Your task to perform on an android device: Go to battery settings Image 0: 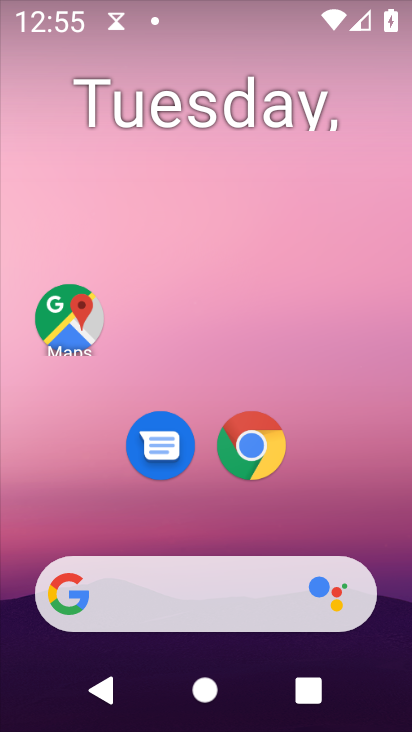
Step 0: drag from (358, 637) to (333, 3)
Your task to perform on an android device: Go to battery settings Image 1: 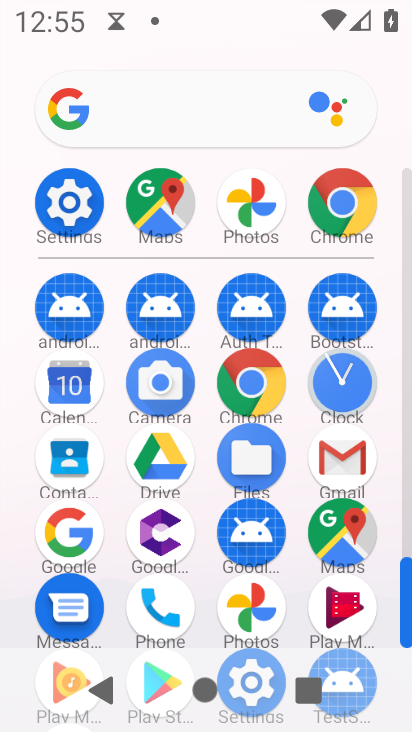
Step 1: click (78, 202)
Your task to perform on an android device: Go to battery settings Image 2: 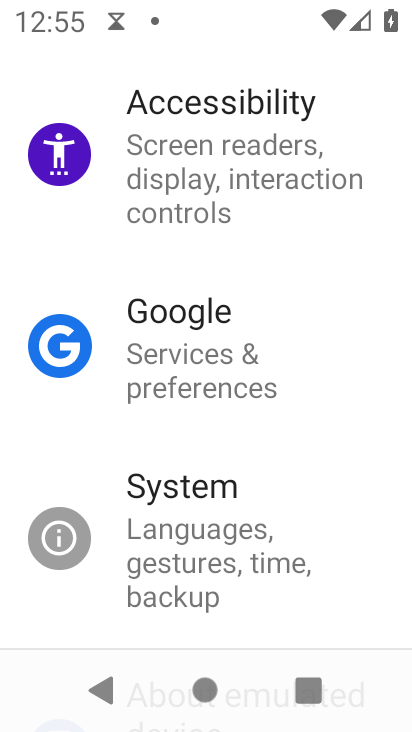
Step 2: drag from (263, 241) to (362, 688)
Your task to perform on an android device: Go to battery settings Image 3: 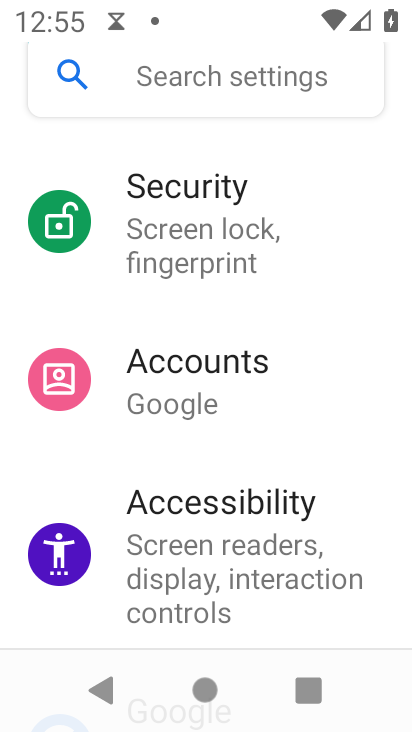
Step 3: drag from (327, 267) to (282, 705)
Your task to perform on an android device: Go to battery settings Image 4: 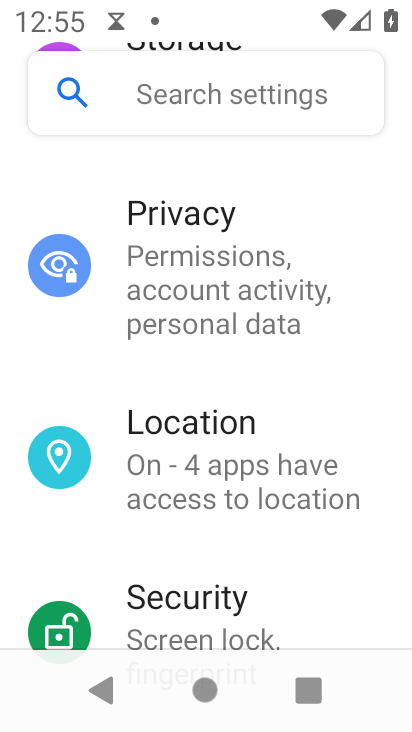
Step 4: drag from (255, 275) to (231, 711)
Your task to perform on an android device: Go to battery settings Image 5: 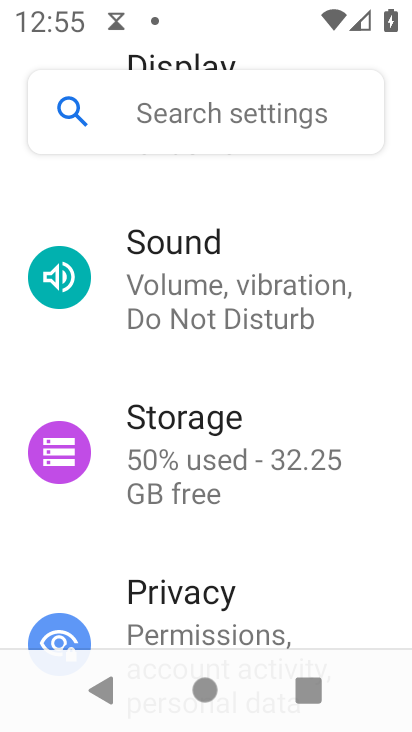
Step 5: drag from (259, 277) to (252, 700)
Your task to perform on an android device: Go to battery settings Image 6: 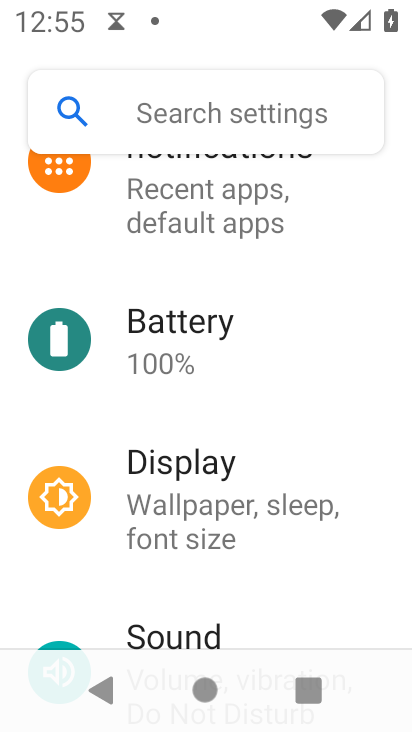
Step 6: click (259, 376)
Your task to perform on an android device: Go to battery settings Image 7: 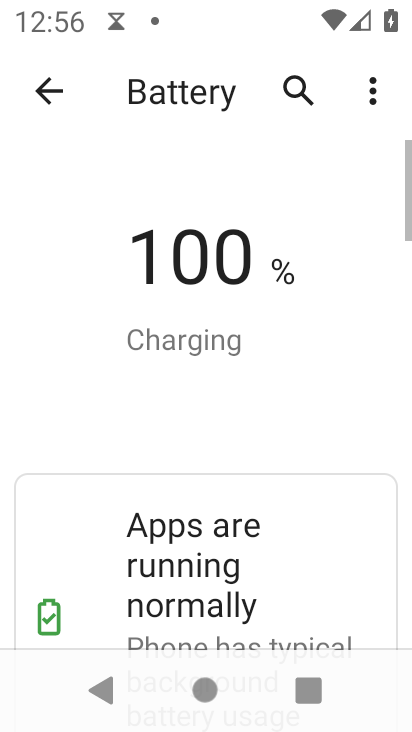
Step 7: task complete